Your task to perform on an android device: Open the web browser Image 0: 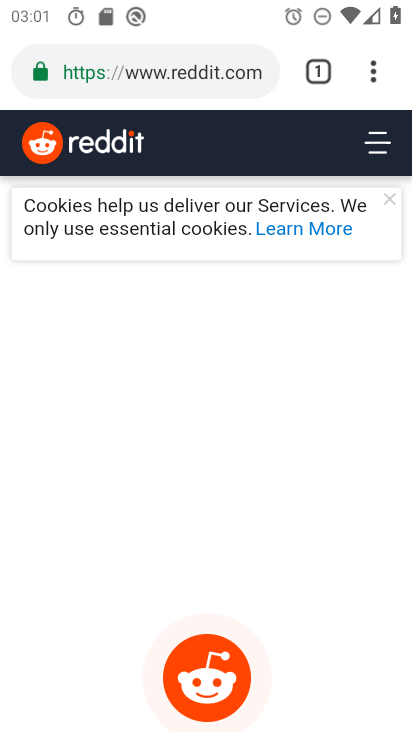
Step 0: press home button
Your task to perform on an android device: Open the web browser Image 1: 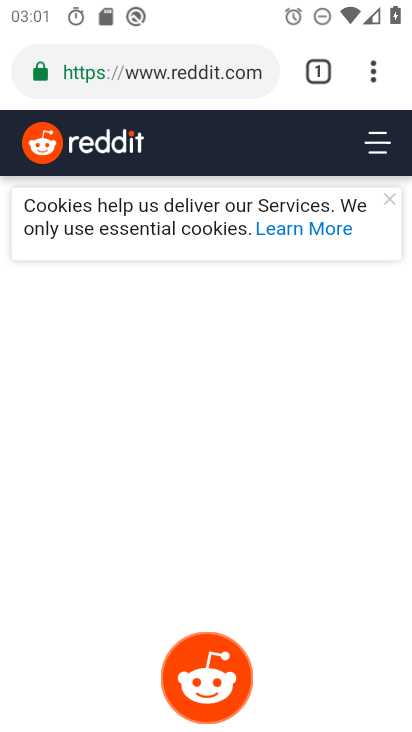
Step 1: press home button
Your task to perform on an android device: Open the web browser Image 2: 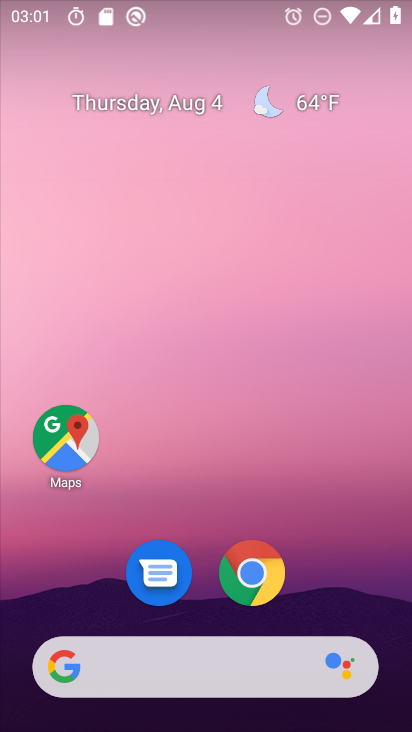
Step 2: drag from (358, 579) to (303, 26)
Your task to perform on an android device: Open the web browser Image 3: 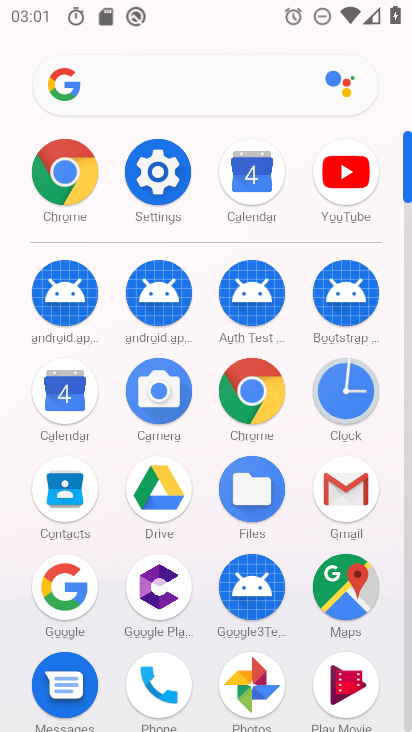
Step 3: click (261, 398)
Your task to perform on an android device: Open the web browser Image 4: 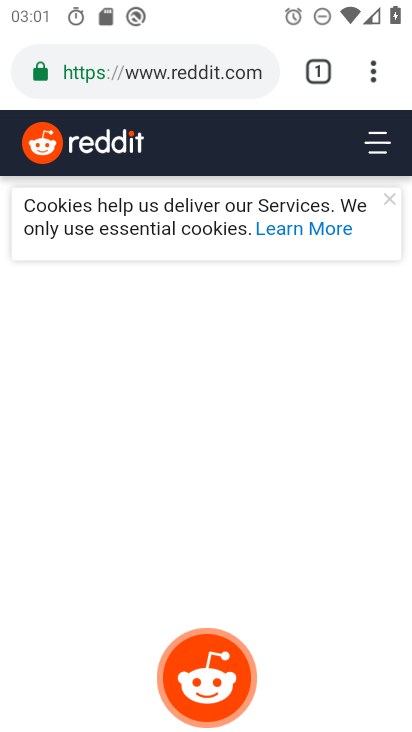
Step 4: task complete